Your task to perform on an android device: move an email to a new category in the gmail app Image 0: 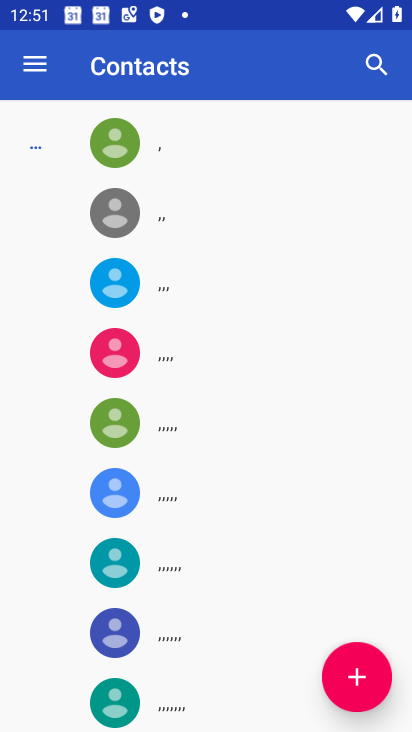
Step 0: press home button
Your task to perform on an android device: move an email to a new category in the gmail app Image 1: 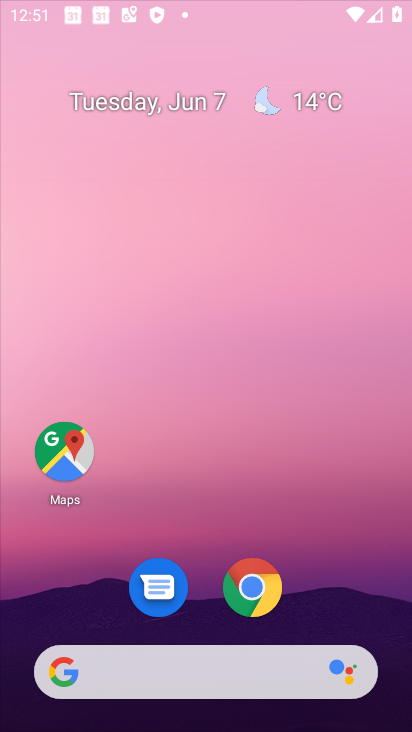
Step 1: drag from (159, 703) to (265, 169)
Your task to perform on an android device: move an email to a new category in the gmail app Image 2: 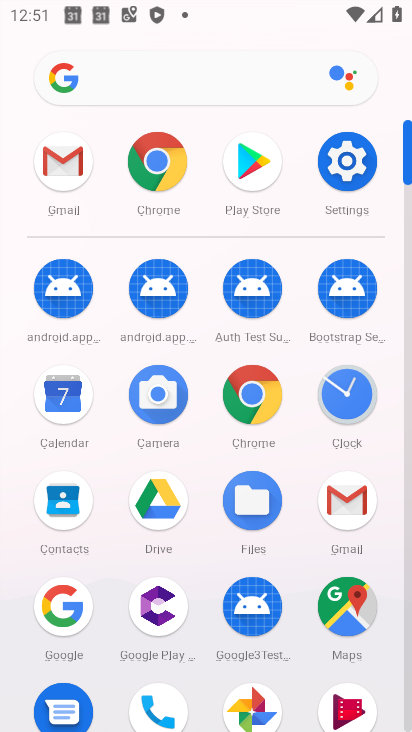
Step 2: click (364, 511)
Your task to perform on an android device: move an email to a new category in the gmail app Image 3: 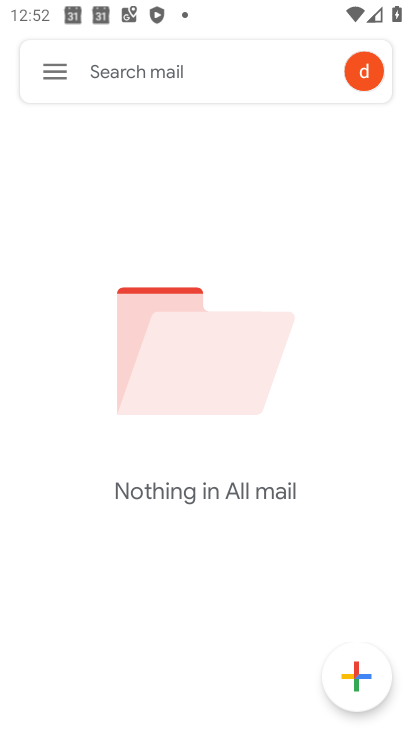
Step 3: task complete